Your task to perform on an android device: Check the news Image 0: 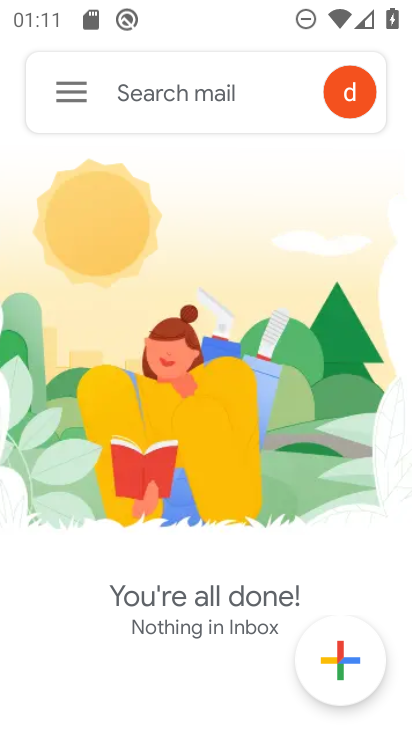
Step 0: drag from (270, 575) to (311, 326)
Your task to perform on an android device: Check the news Image 1: 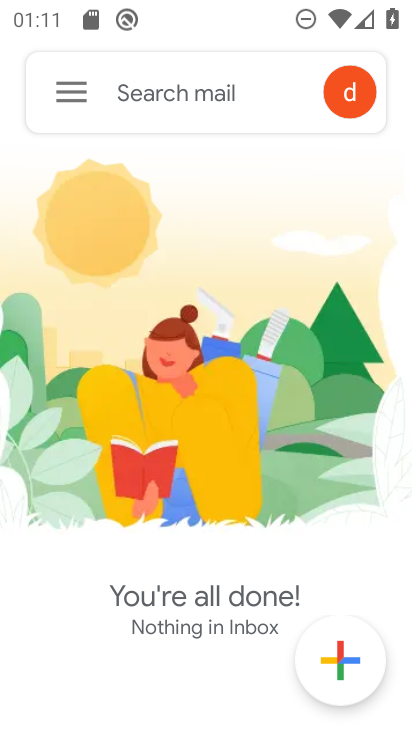
Step 1: click (64, 86)
Your task to perform on an android device: Check the news Image 2: 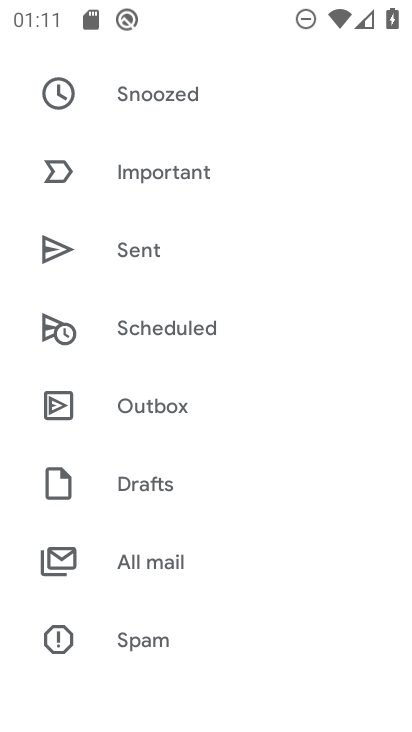
Step 2: drag from (256, 549) to (297, 289)
Your task to perform on an android device: Check the news Image 3: 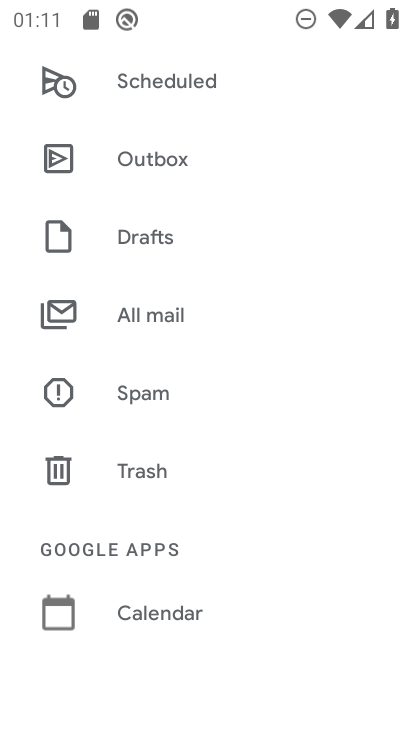
Step 3: drag from (296, 234) to (411, 632)
Your task to perform on an android device: Check the news Image 4: 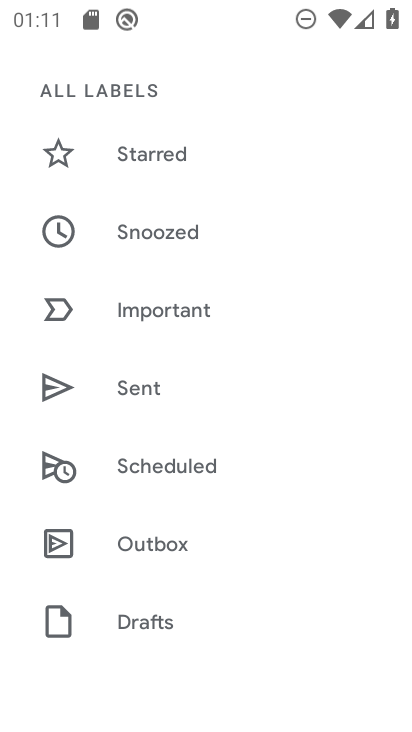
Step 4: press home button
Your task to perform on an android device: Check the news Image 5: 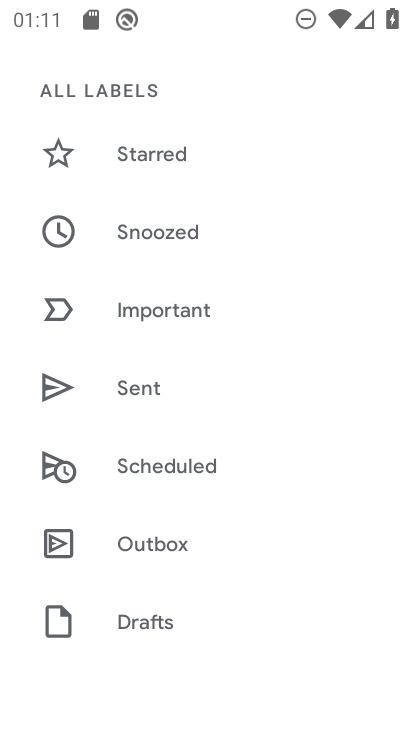
Step 5: drag from (411, 632) to (408, 496)
Your task to perform on an android device: Check the news Image 6: 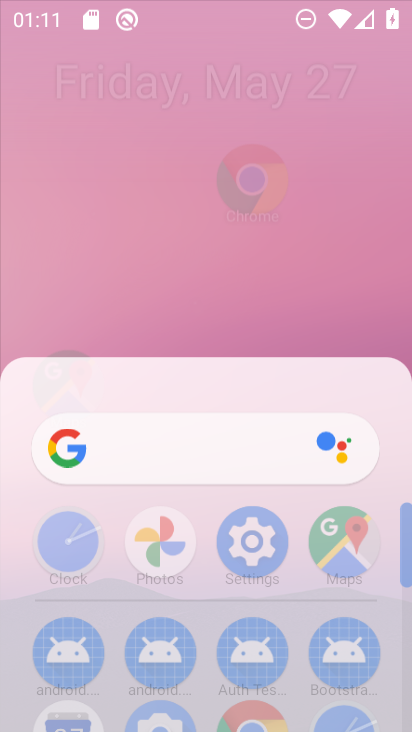
Step 6: drag from (288, 647) to (344, 158)
Your task to perform on an android device: Check the news Image 7: 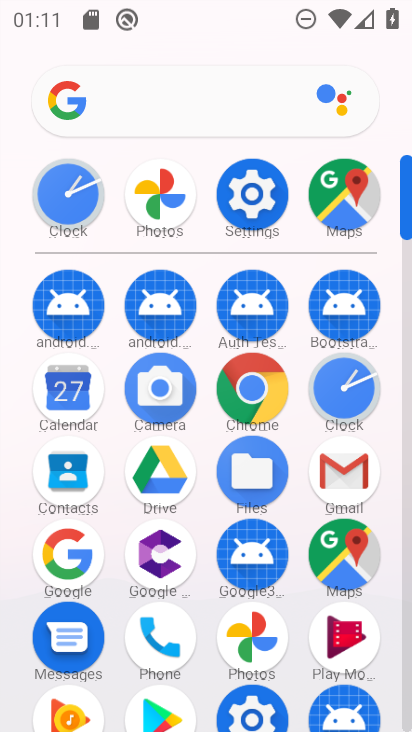
Step 7: drag from (219, 538) to (270, 215)
Your task to perform on an android device: Check the news Image 8: 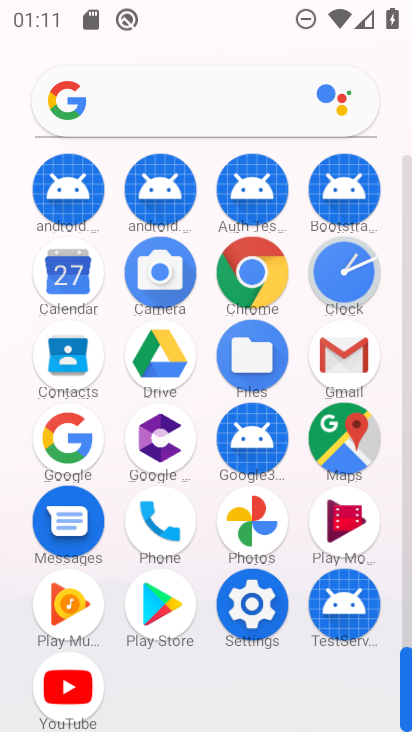
Step 8: click (181, 75)
Your task to perform on an android device: Check the news Image 9: 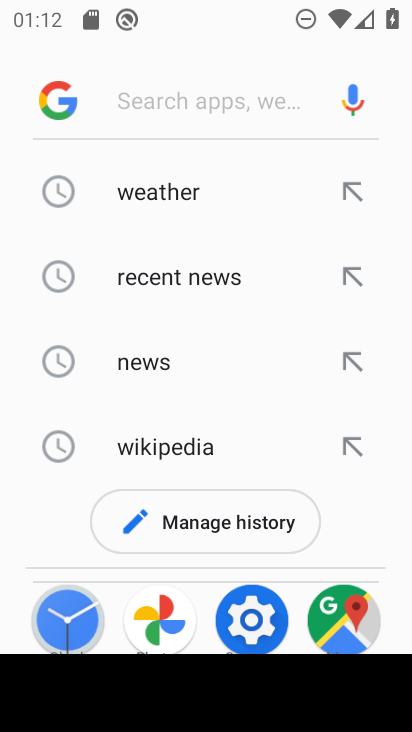
Step 9: click (207, 366)
Your task to perform on an android device: Check the news Image 10: 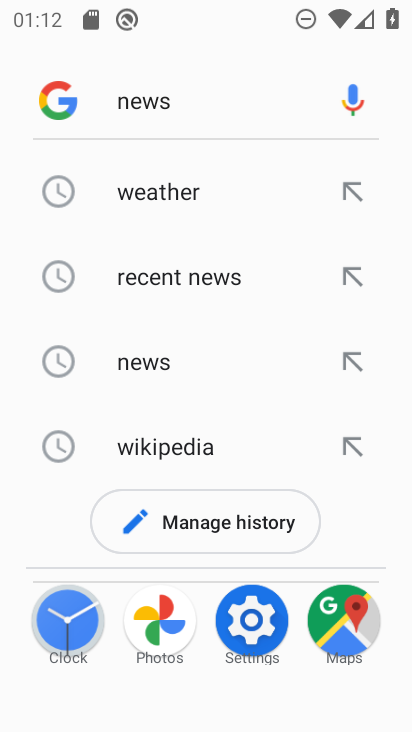
Step 10: task complete